Your task to perform on an android device: set the stopwatch Image 0: 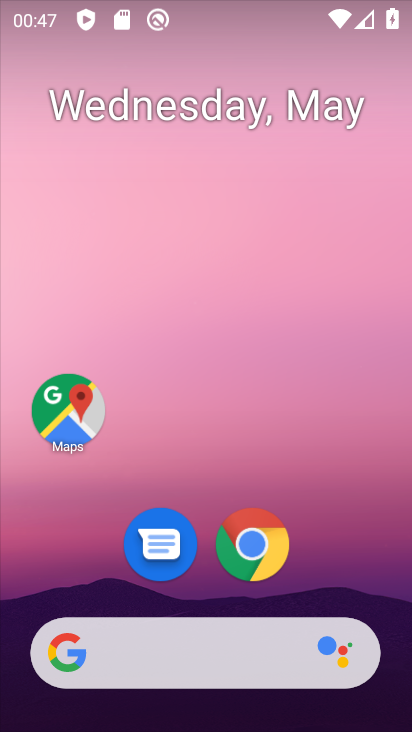
Step 0: drag from (359, 541) to (345, 164)
Your task to perform on an android device: set the stopwatch Image 1: 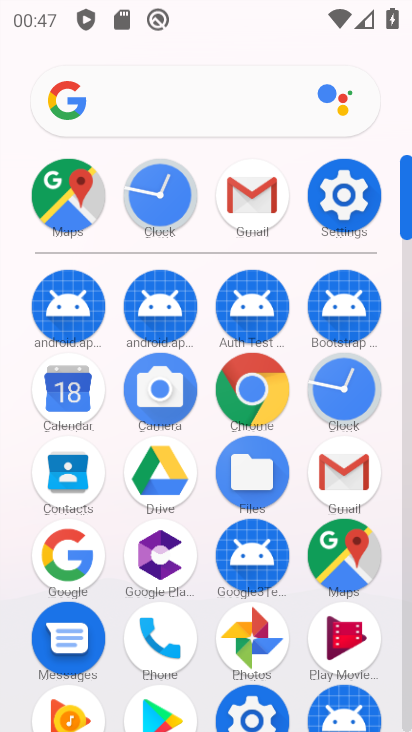
Step 1: click (172, 196)
Your task to perform on an android device: set the stopwatch Image 2: 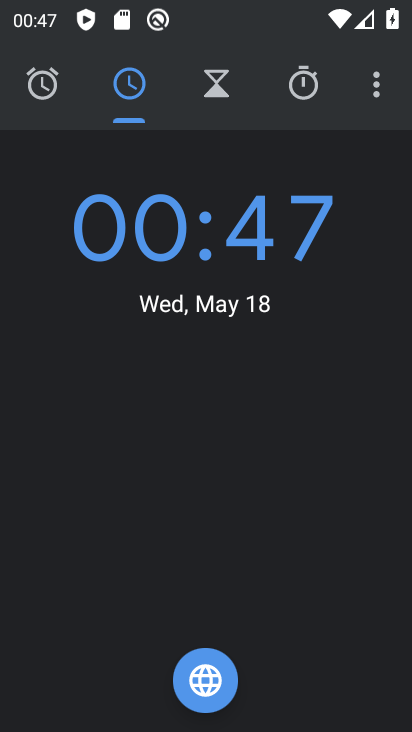
Step 2: click (311, 97)
Your task to perform on an android device: set the stopwatch Image 3: 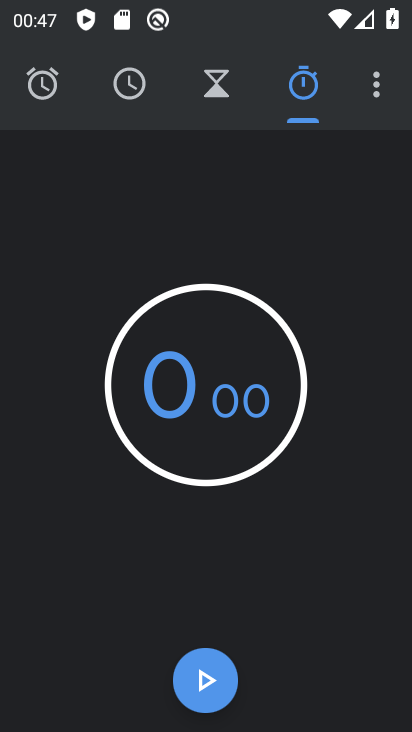
Step 3: click (212, 683)
Your task to perform on an android device: set the stopwatch Image 4: 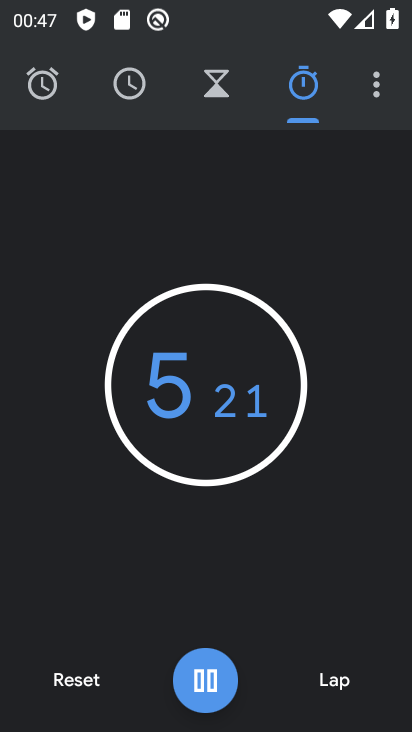
Step 4: click (211, 683)
Your task to perform on an android device: set the stopwatch Image 5: 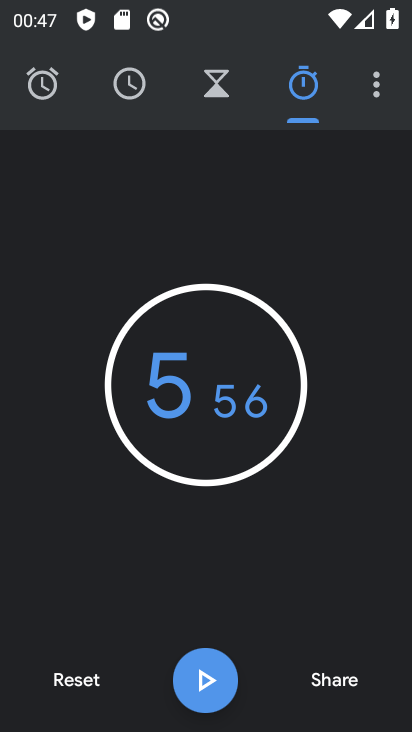
Step 5: task complete